Your task to perform on an android device: Check out the new nike air max 2020. Image 0: 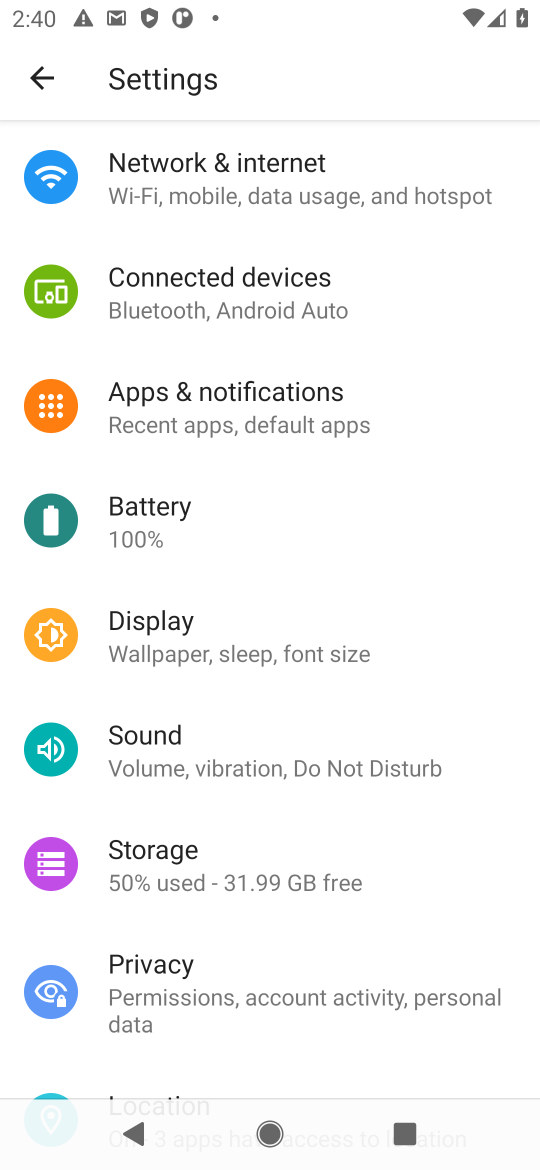
Step 0: press home button
Your task to perform on an android device: Check out the new nike air max 2020. Image 1: 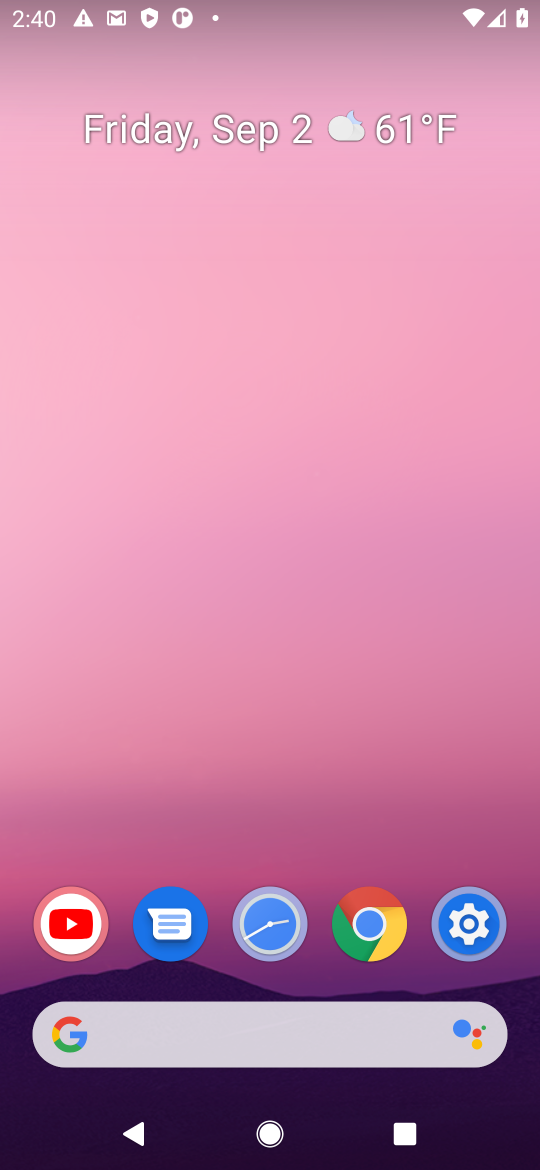
Step 1: click (387, 1035)
Your task to perform on an android device: Check out the new nike air max 2020. Image 2: 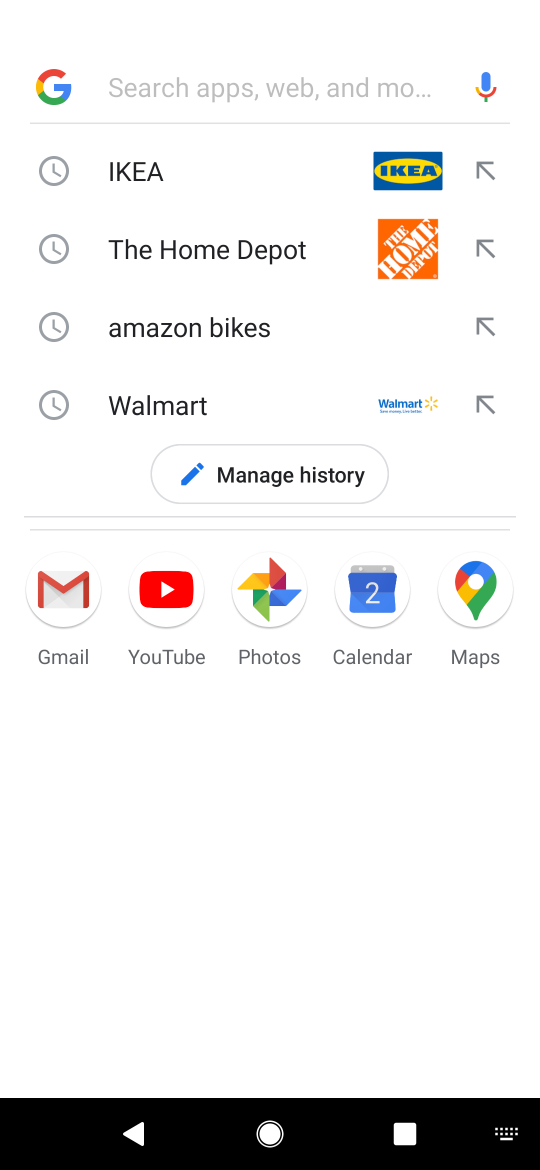
Step 2: type "nike"
Your task to perform on an android device: Check out the new nike air max 2020. Image 3: 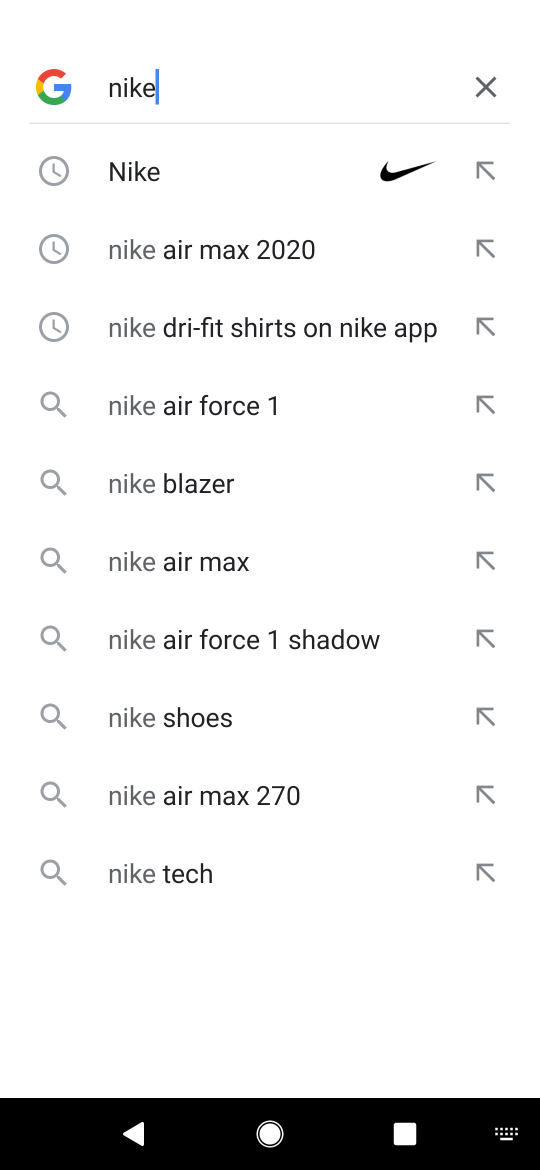
Step 3: click (275, 252)
Your task to perform on an android device: Check out the new nike air max 2020. Image 4: 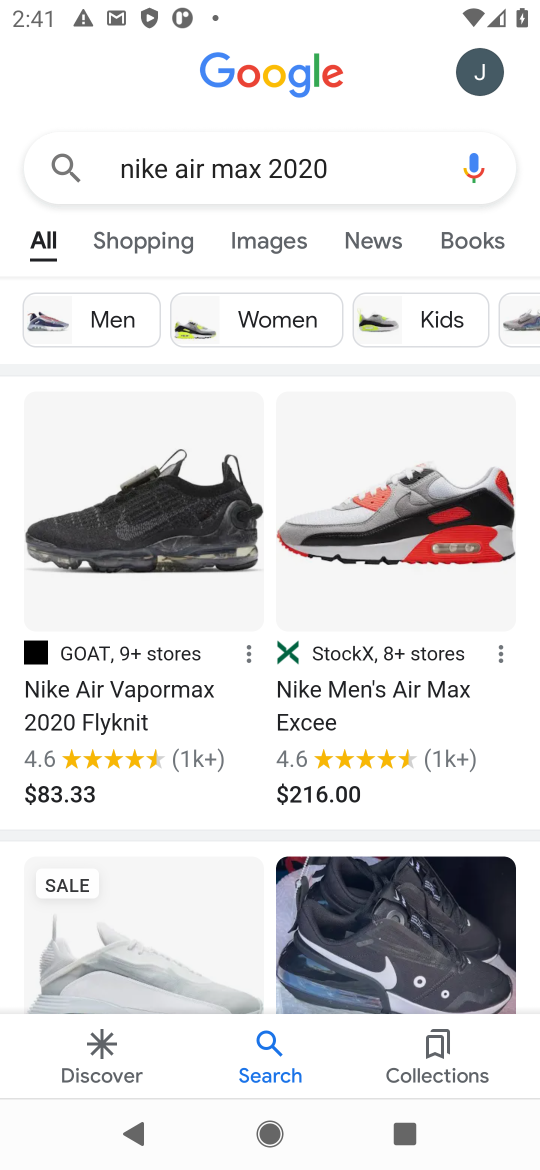
Step 4: task complete